Your task to perform on an android device: Go to ESPN.com Image 0: 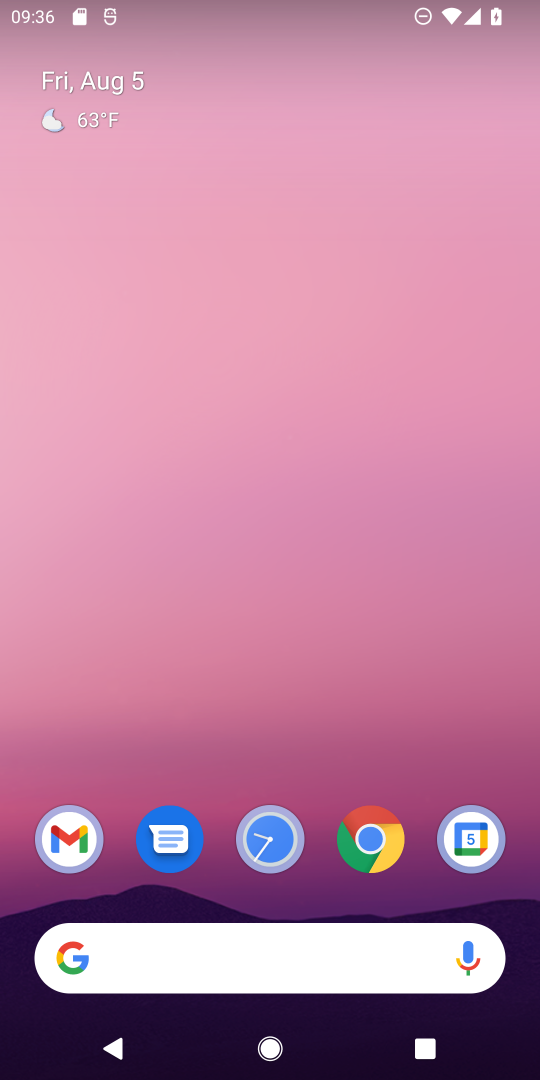
Step 0: drag from (307, 910) to (307, 106)
Your task to perform on an android device: Go to ESPN.com Image 1: 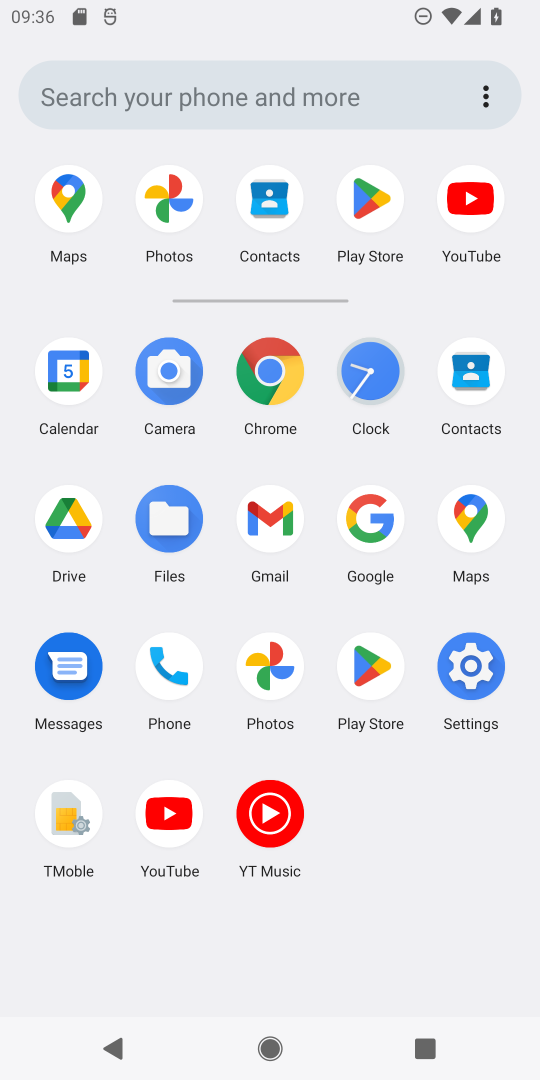
Step 1: click (278, 380)
Your task to perform on an android device: Go to ESPN.com Image 2: 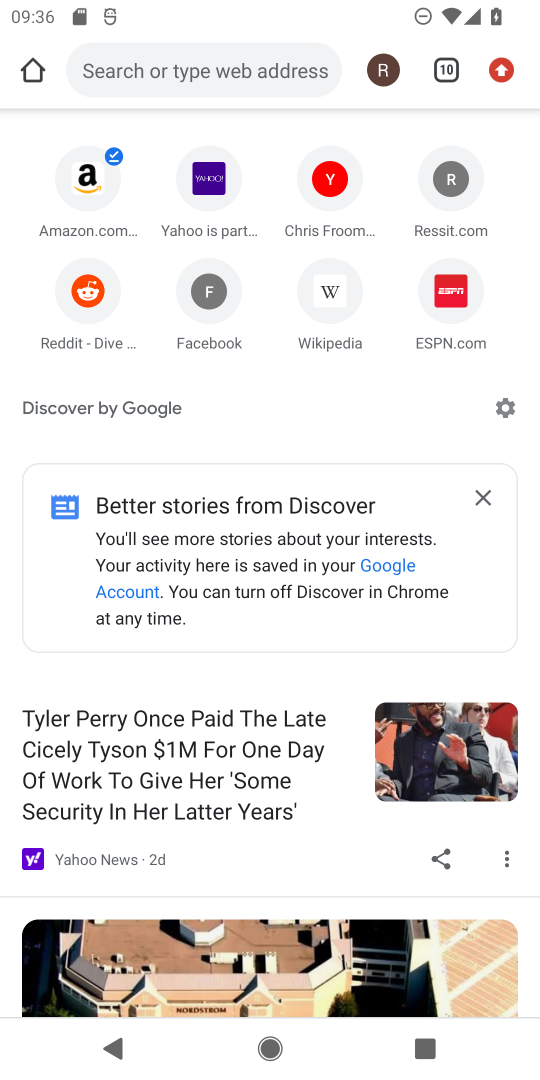
Step 2: click (244, 73)
Your task to perform on an android device: Go to ESPN.com Image 3: 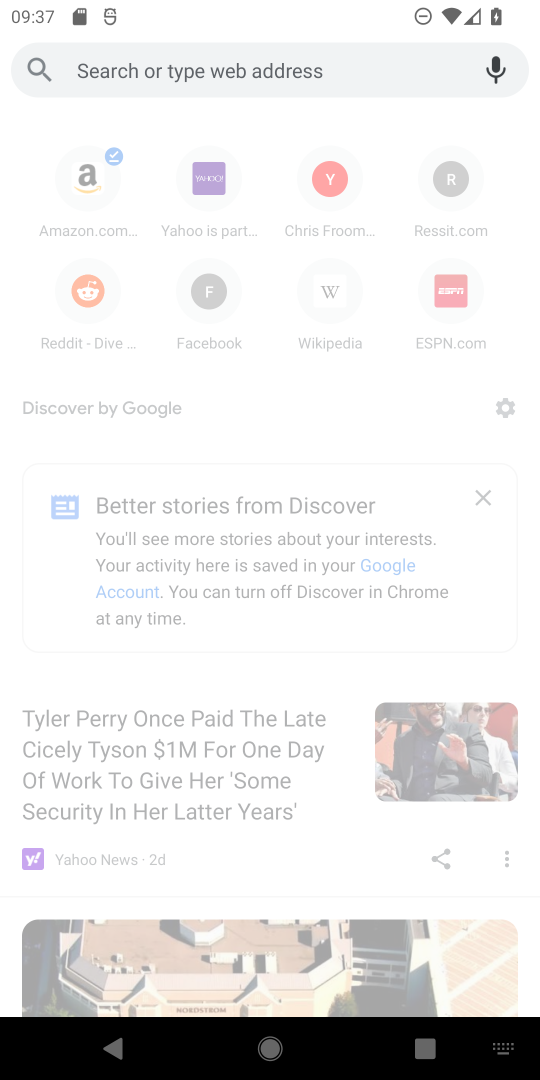
Step 3: type "ESPN"
Your task to perform on an android device: Go to ESPN.com Image 4: 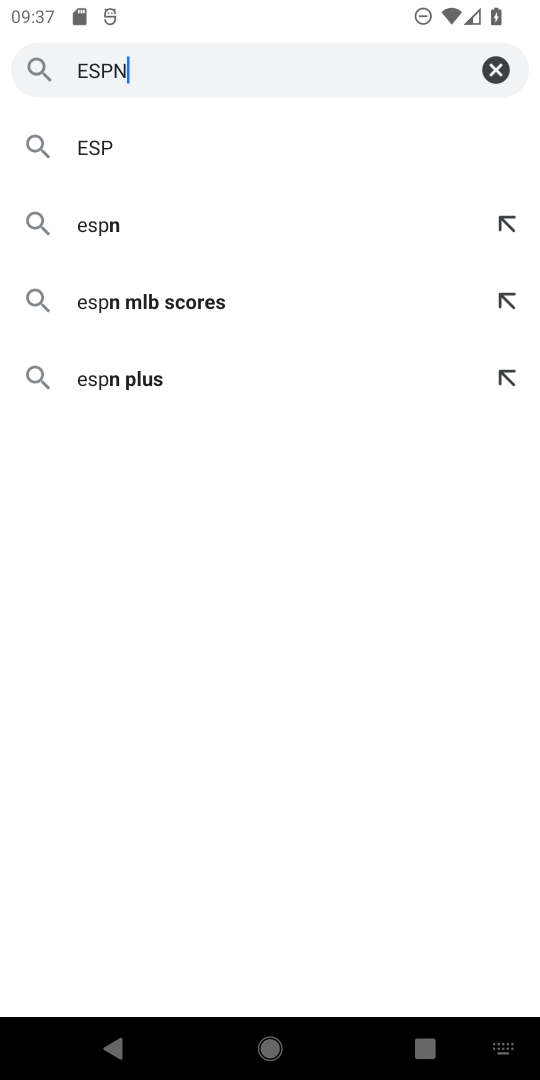
Step 4: type ""
Your task to perform on an android device: Go to ESPN.com Image 5: 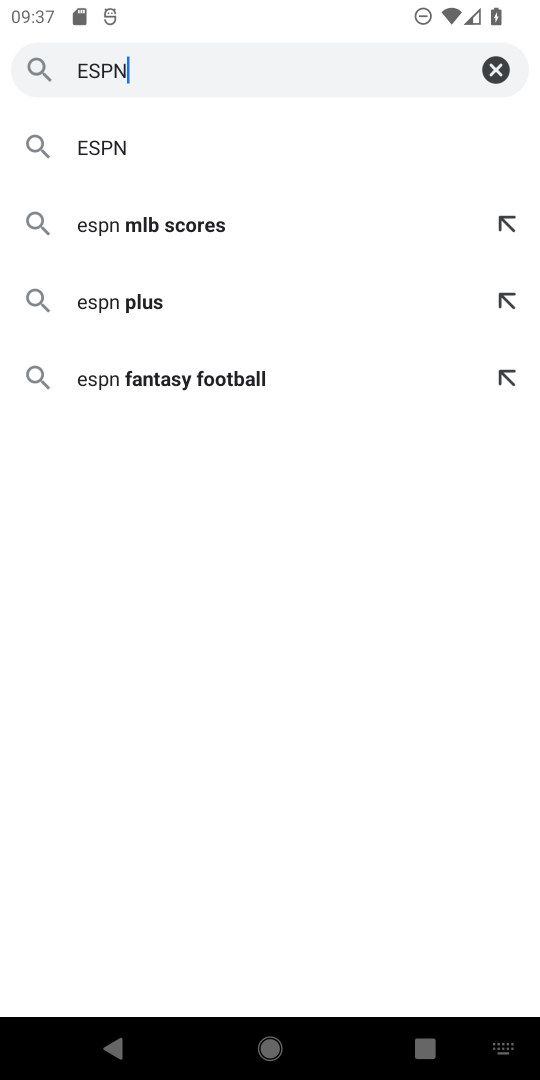
Step 5: click (102, 144)
Your task to perform on an android device: Go to ESPN.com Image 6: 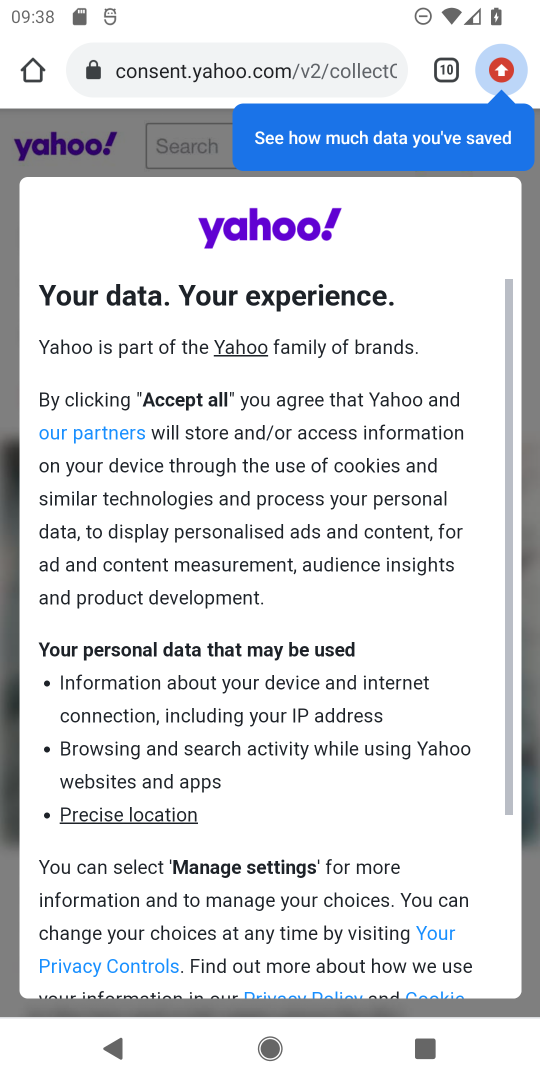
Step 6: drag from (261, 884) to (246, 554)
Your task to perform on an android device: Go to ESPN.com Image 7: 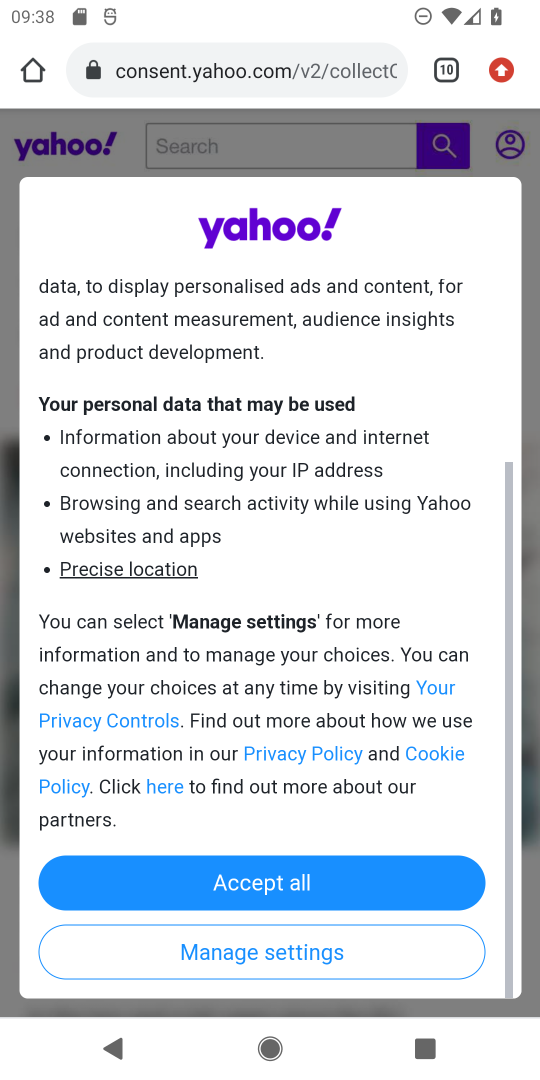
Step 7: click (296, 887)
Your task to perform on an android device: Go to ESPN.com Image 8: 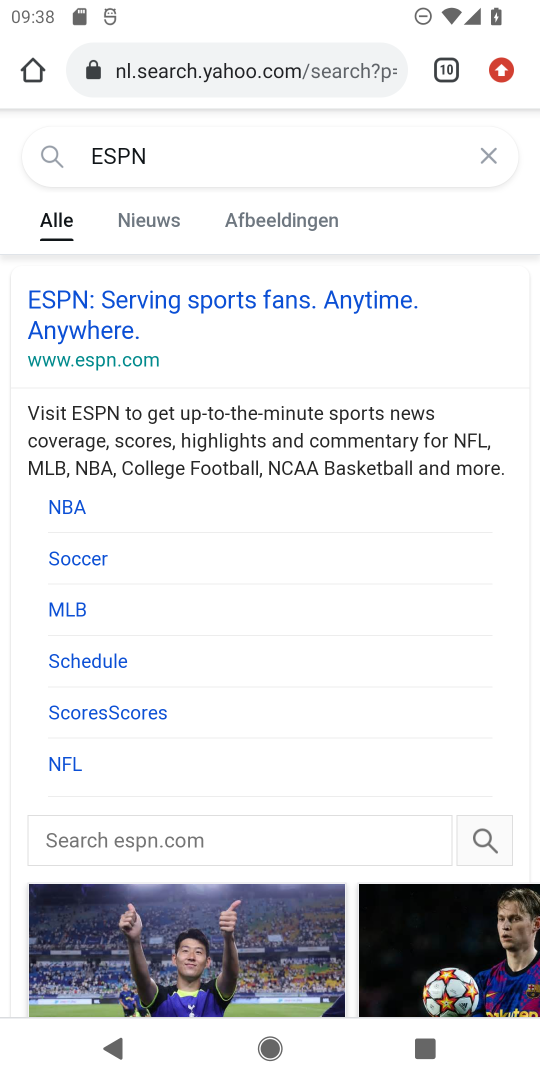
Step 8: click (65, 309)
Your task to perform on an android device: Go to ESPN.com Image 9: 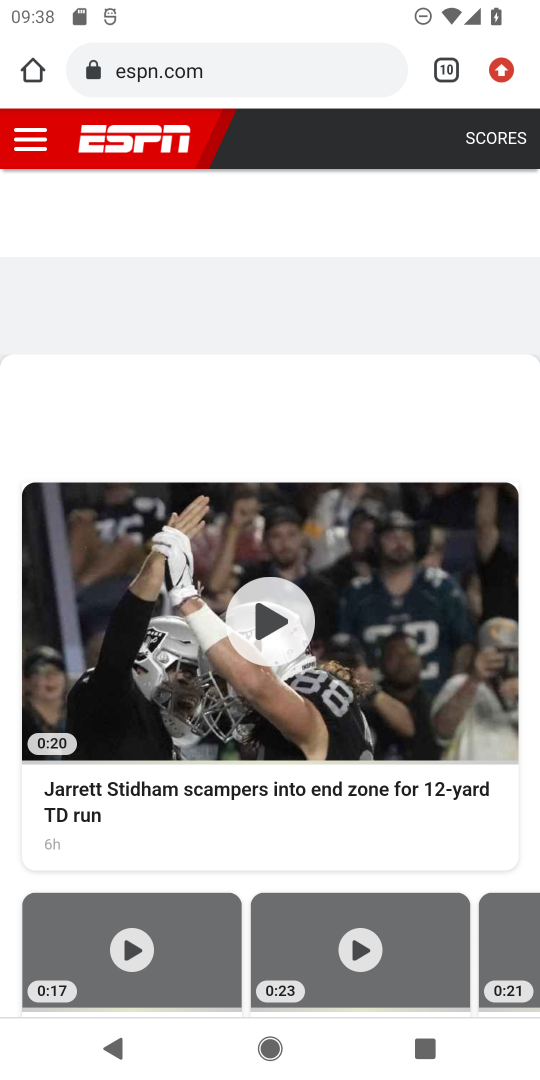
Step 9: task complete